Your task to perform on an android device: turn off wifi Image 0: 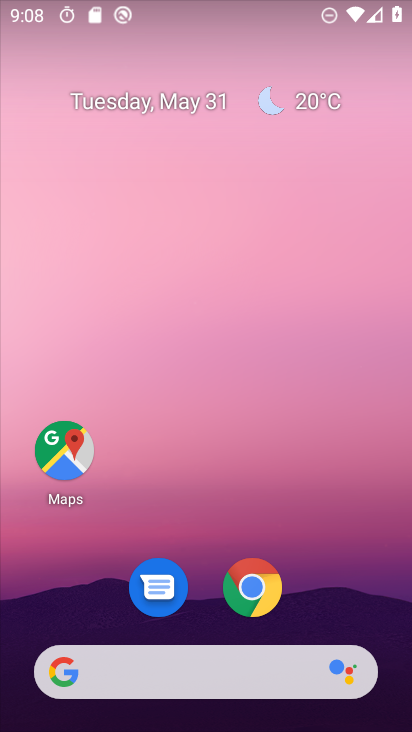
Step 0: drag from (227, 13) to (212, 548)
Your task to perform on an android device: turn off wifi Image 1: 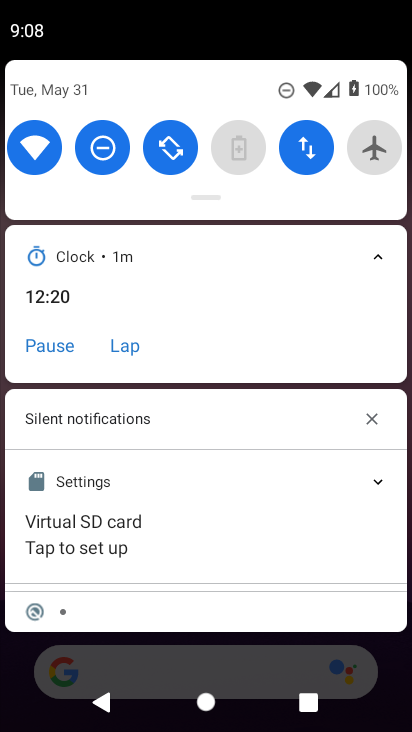
Step 1: click (37, 126)
Your task to perform on an android device: turn off wifi Image 2: 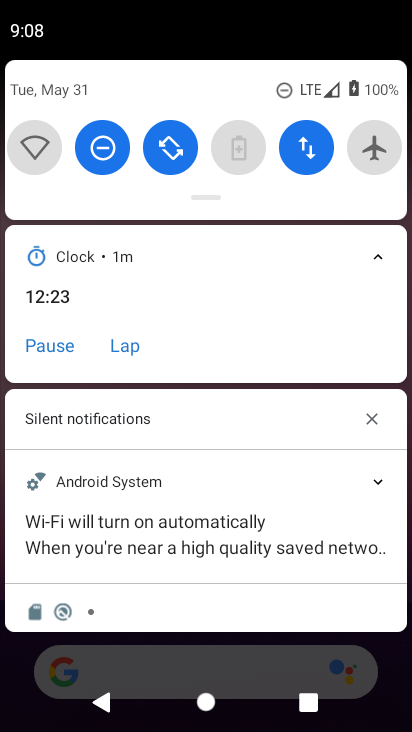
Step 2: task complete